Your task to perform on an android device: toggle airplane mode Image 0: 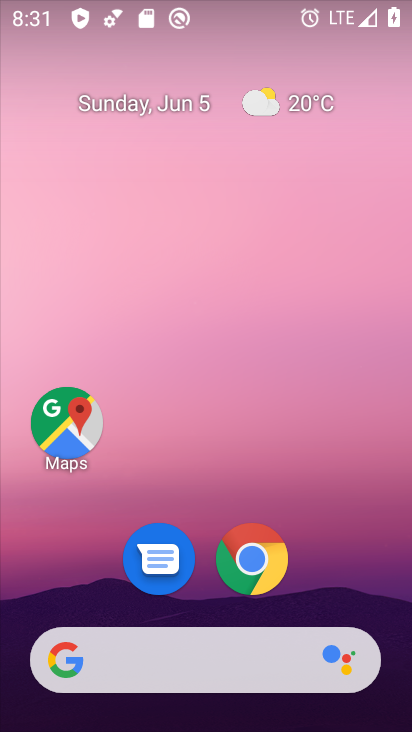
Step 0: drag from (340, 486) to (310, 1)
Your task to perform on an android device: toggle airplane mode Image 1: 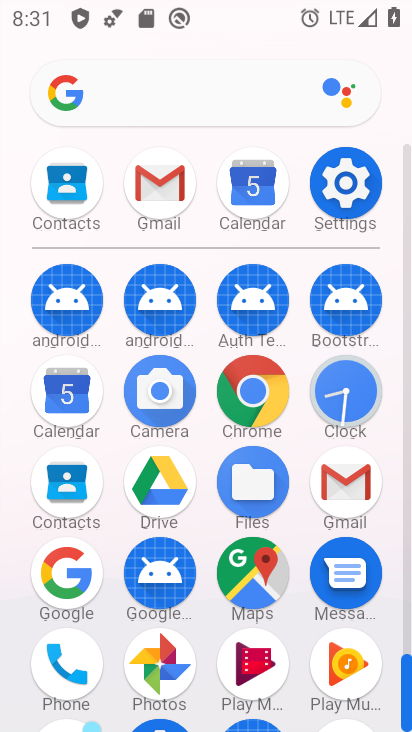
Step 1: click (353, 170)
Your task to perform on an android device: toggle airplane mode Image 2: 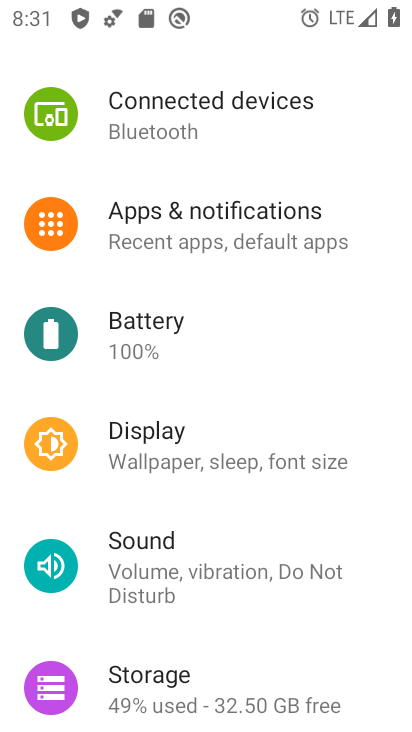
Step 2: drag from (239, 335) to (215, 691)
Your task to perform on an android device: toggle airplane mode Image 3: 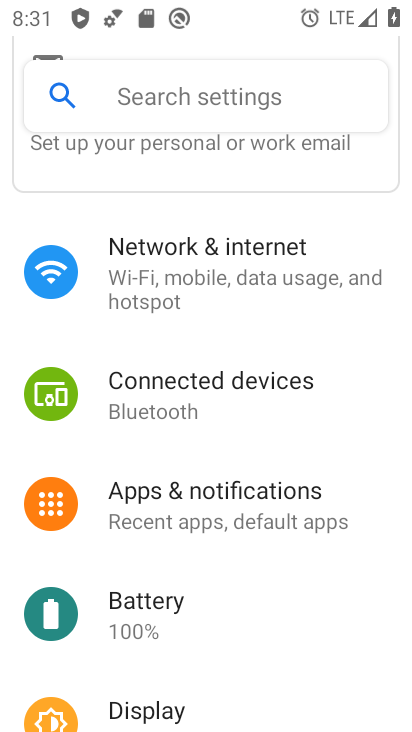
Step 3: click (201, 287)
Your task to perform on an android device: toggle airplane mode Image 4: 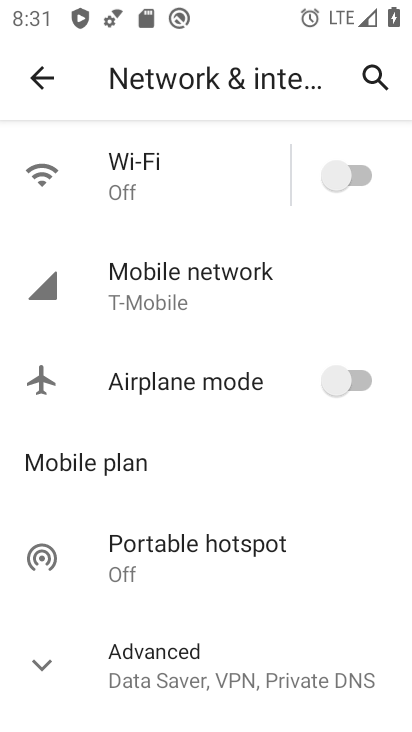
Step 4: click (349, 386)
Your task to perform on an android device: toggle airplane mode Image 5: 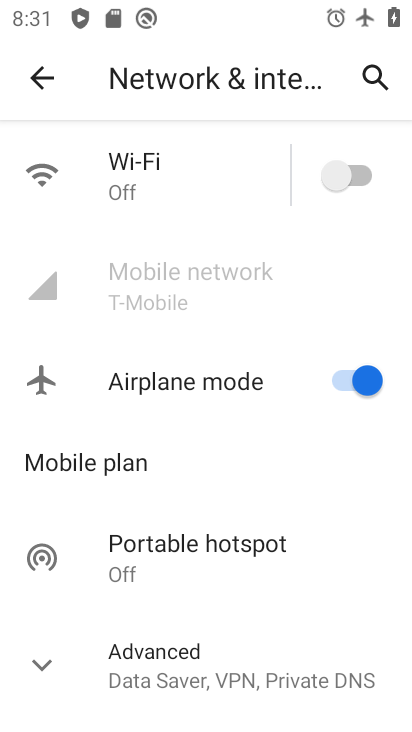
Step 5: task complete